Your task to perform on an android device: change keyboard looks Image 0: 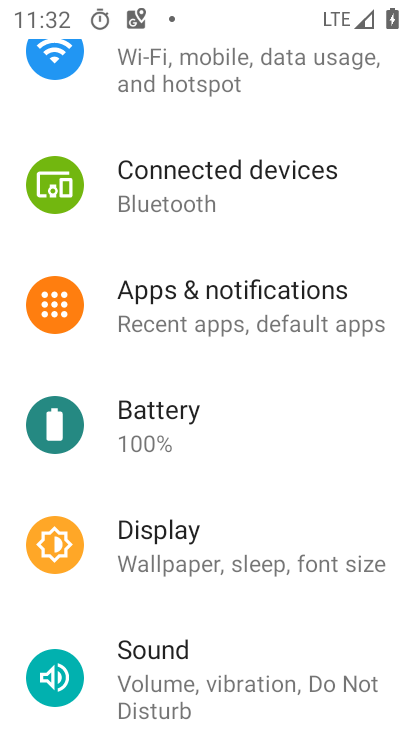
Step 0: drag from (120, 642) to (182, 168)
Your task to perform on an android device: change keyboard looks Image 1: 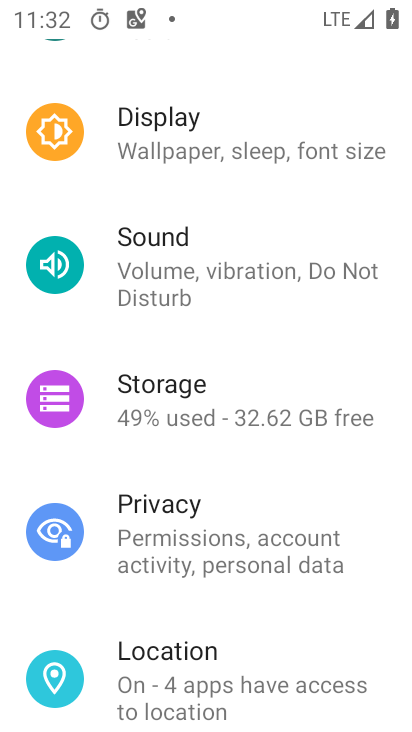
Step 1: drag from (210, 604) to (167, 22)
Your task to perform on an android device: change keyboard looks Image 2: 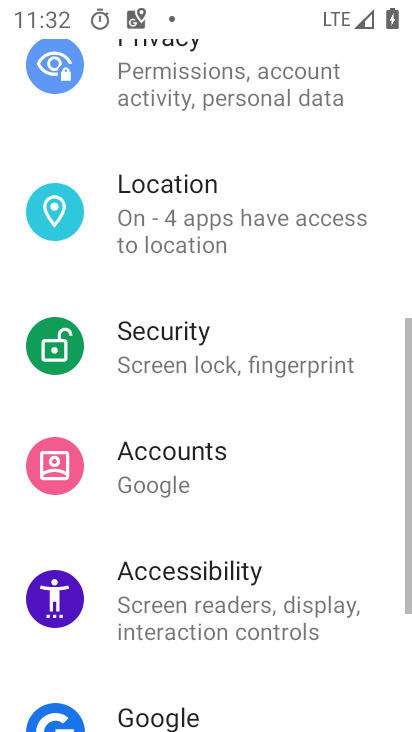
Step 2: drag from (220, 609) to (205, 2)
Your task to perform on an android device: change keyboard looks Image 3: 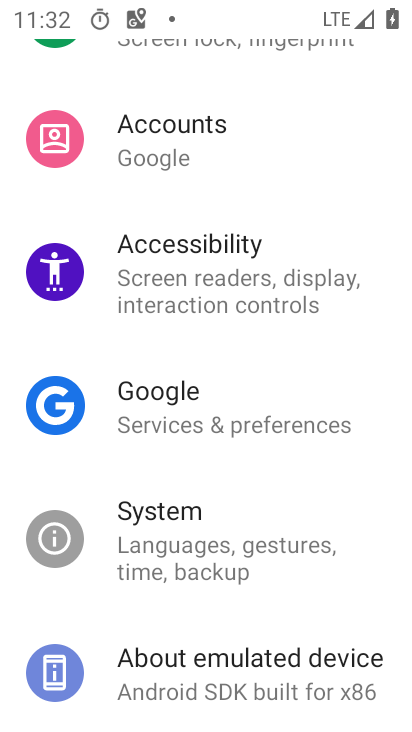
Step 3: click (162, 569)
Your task to perform on an android device: change keyboard looks Image 4: 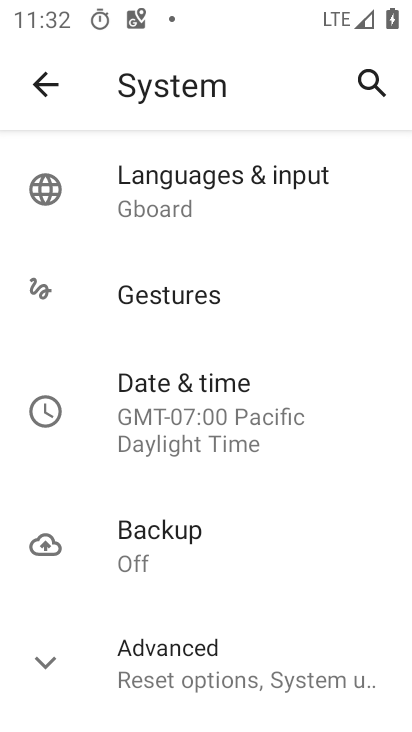
Step 4: click (152, 192)
Your task to perform on an android device: change keyboard looks Image 5: 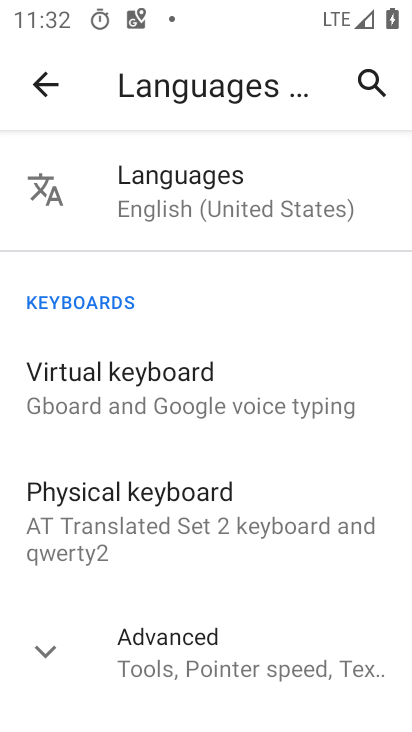
Step 5: click (91, 394)
Your task to perform on an android device: change keyboard looks Image 6: 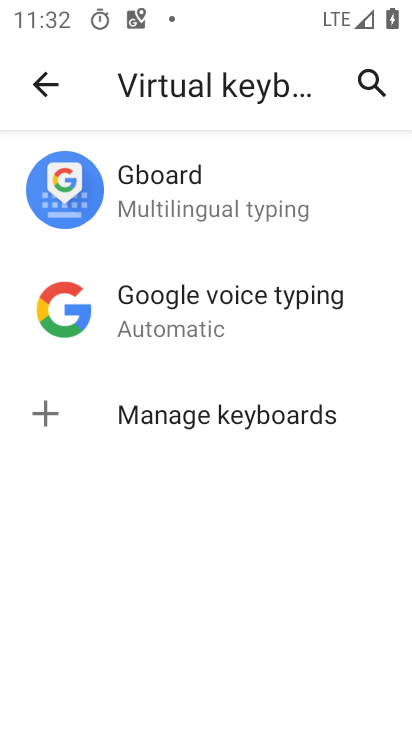
Step 6: click (195, 214)
Your task to perform on an android device: change keyboard looks Image 7: 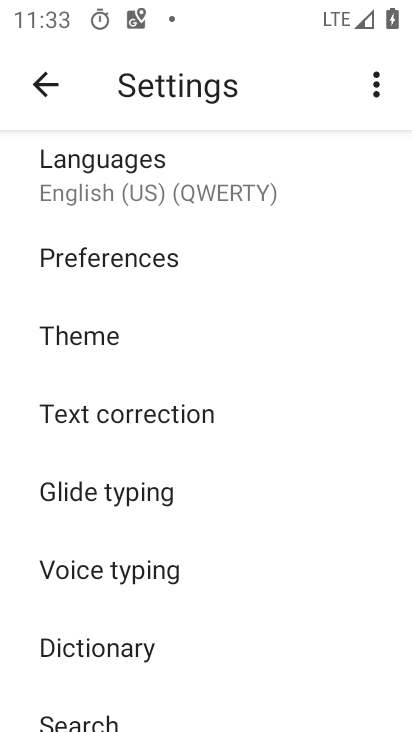
Step 7: click (109, 344)
Your task to perform on an android device: change keyboard looks Image 8: 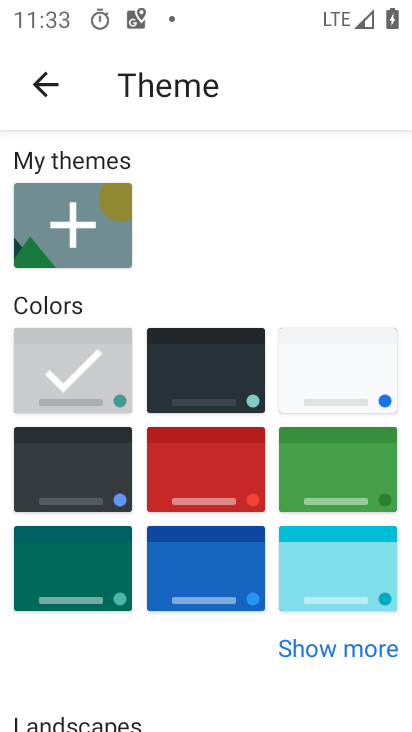
Step 8: click (89, 560)
Your task to perform on an android device: change keyboard looks Image 9: 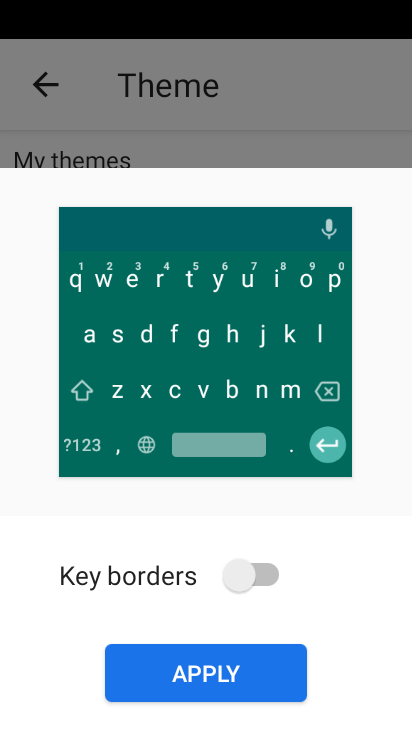
Step 9: click (226, 680)
Your task to perform on an android device: change keyboard looks Image 10: 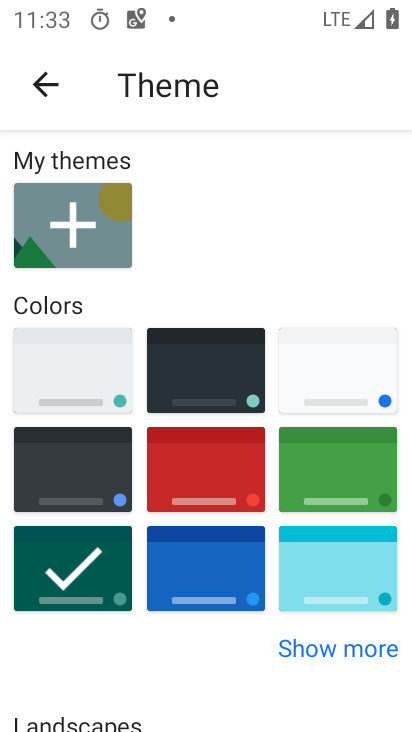
Step 10: task complete